Your task to perform on an android device: turn on notifications settings in the gmail app Image 0: 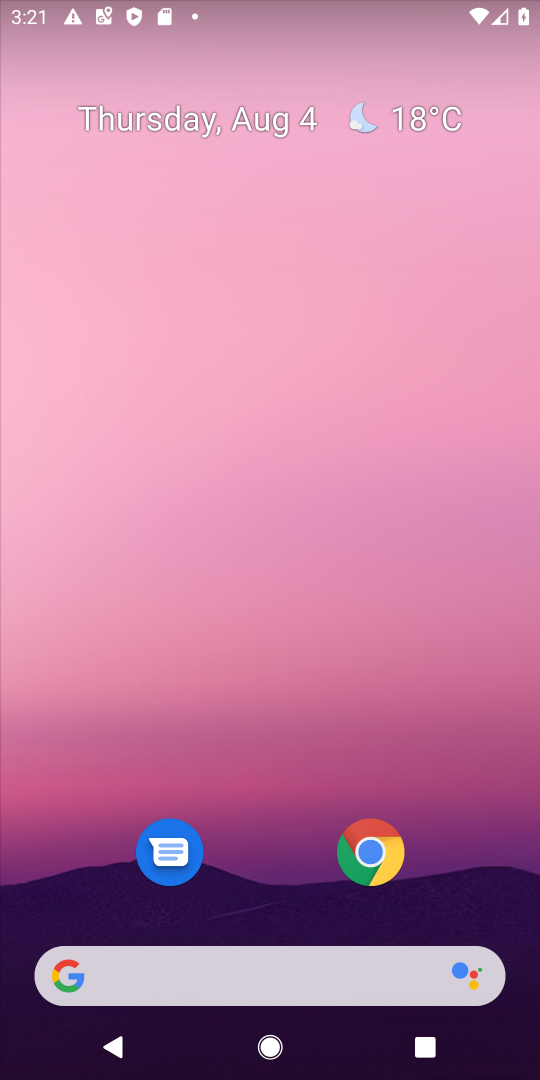
Step 0: drag from (167, 922) to (321, 66)
Your task to perform on an android device: turn on notifications settings in the gmail app Image 1: 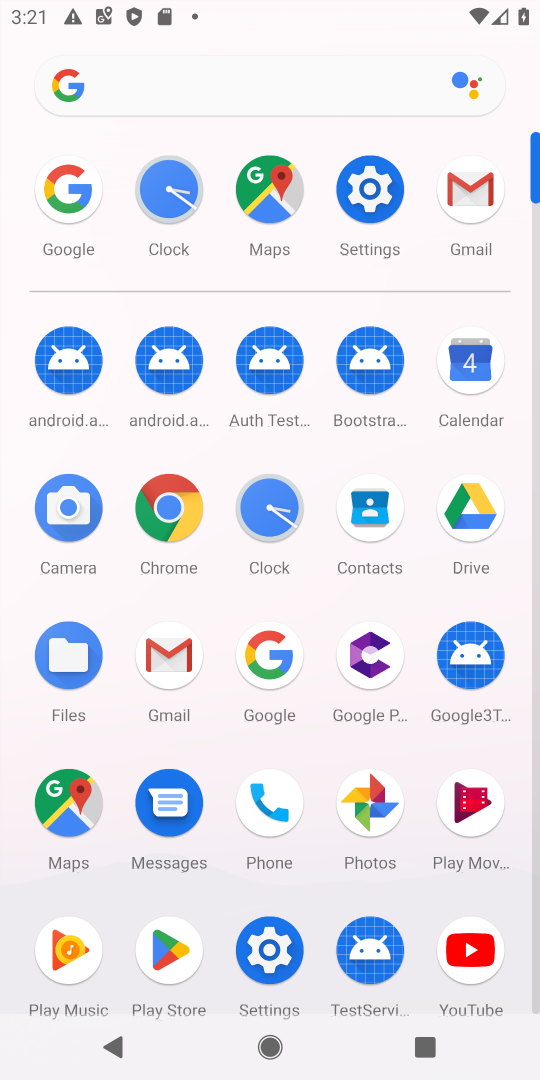
Step 1: click (469, 181)
Your task to perform on an android device: turn on notifications settings in the gmail app Image 2: 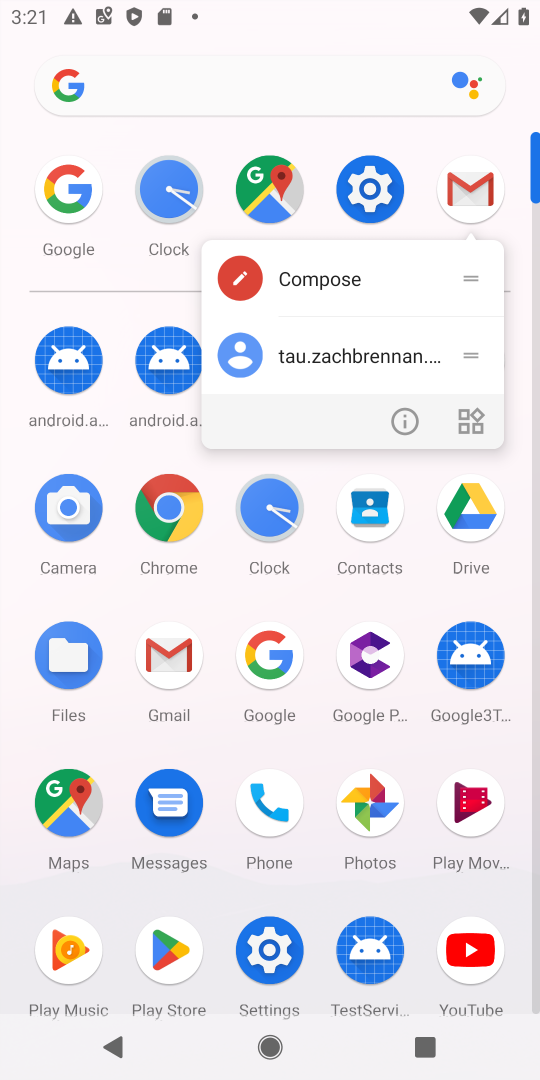
Step 2: click (413, 418)
Your task to perform on an android device: turn on notifications settings in the gmail app Image 3: 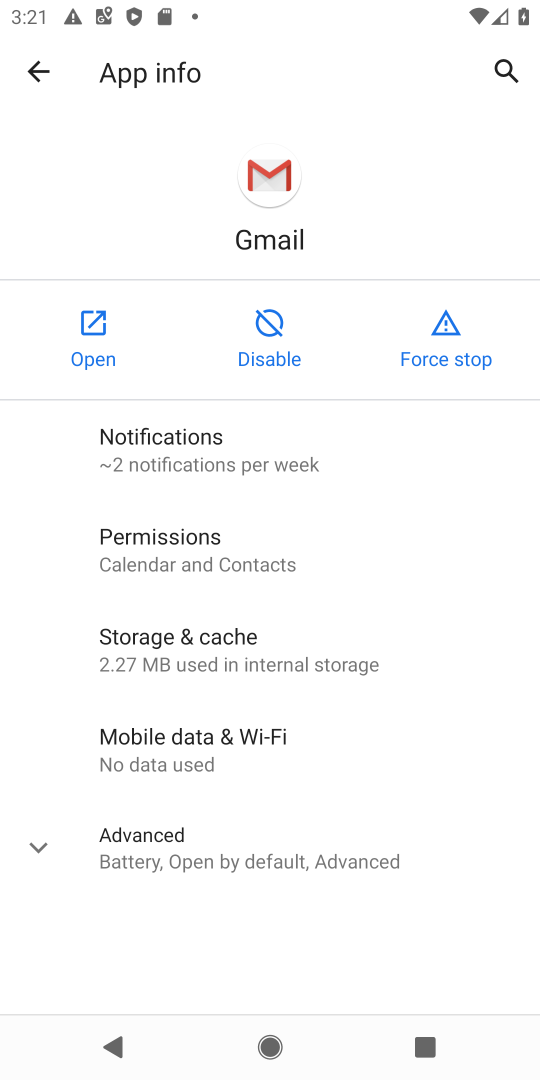
Step 3: click (240, 447)
Your task to perform on an android device: turn on notifications settings in the gmail app Image 4: 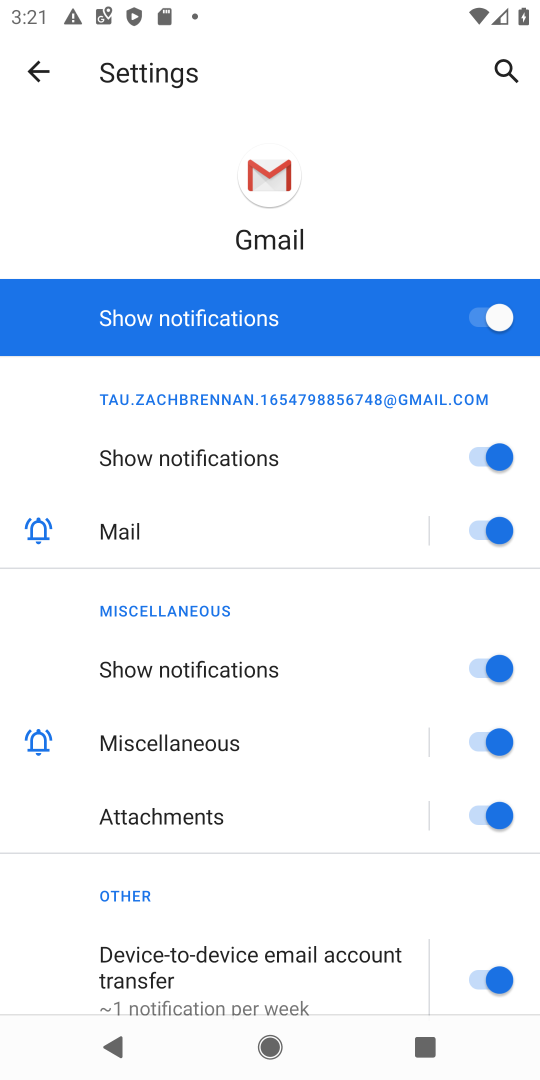
Step 4: task complete